Your task to perform on an android device: turn on bluetooth scan Image 0: 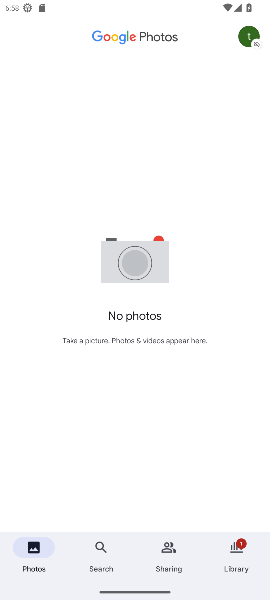
Step 0: press home button
Your task to perform on an android device: turn on bluetooth scan Image 1: 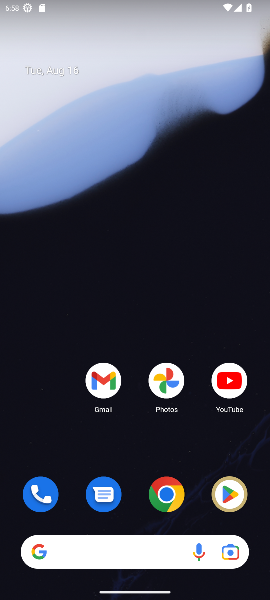
Step 1: task complete